Your task to perform on an android device: turn off data saver in the chrome app Image 0: 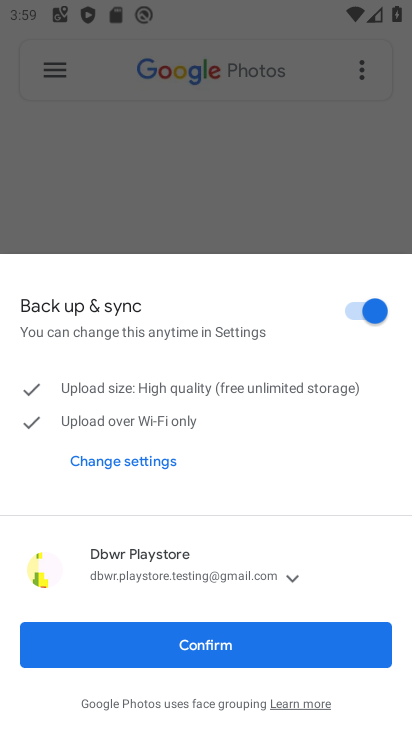
Step 0: press home button
Your task to perform on an android device: turn off data saver in the chrome app Image 1: 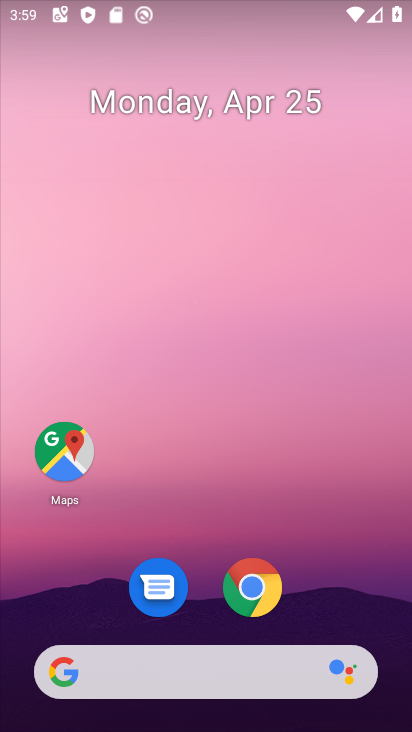
Step 1: click (254, 592)
Your task to perform on an android device: turn off data saver in the chrome app Image 2: 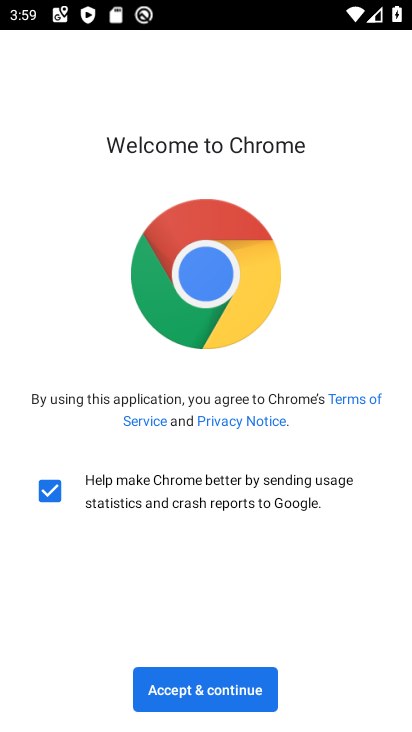
Step 2: click (160, 690)
Your task to perform on an android device: turn off data saver in the chrome app Image 3: 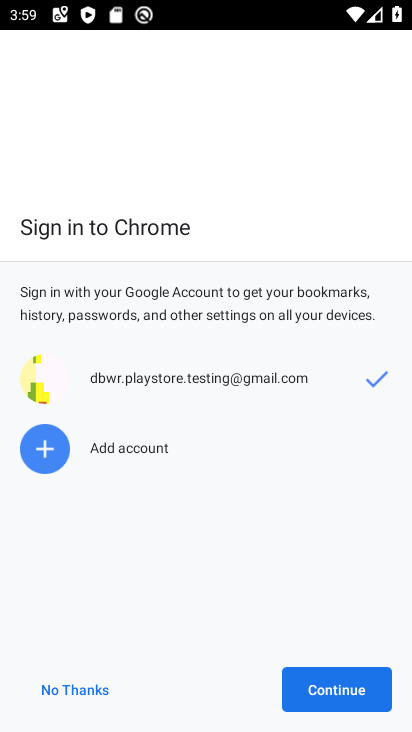
Step 3: click (102, 688)
Your task to perform on an android device: turn off data saver in the chrome app Image 4: 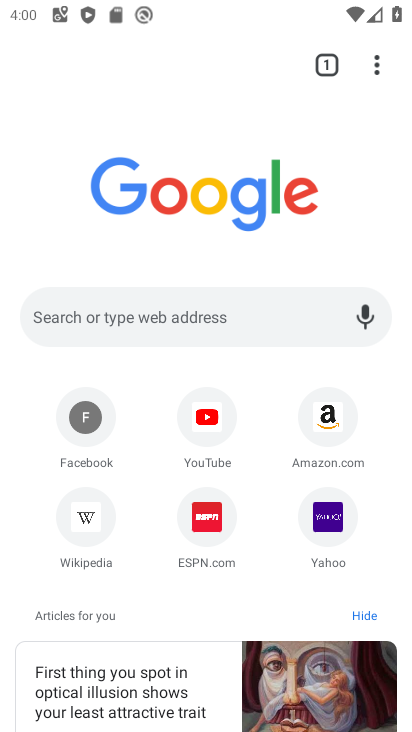
Step 4: drag from (377, 60) to (164, 532)
Your task to perform on an android device: turn off data saver in the chrome app Image 5: 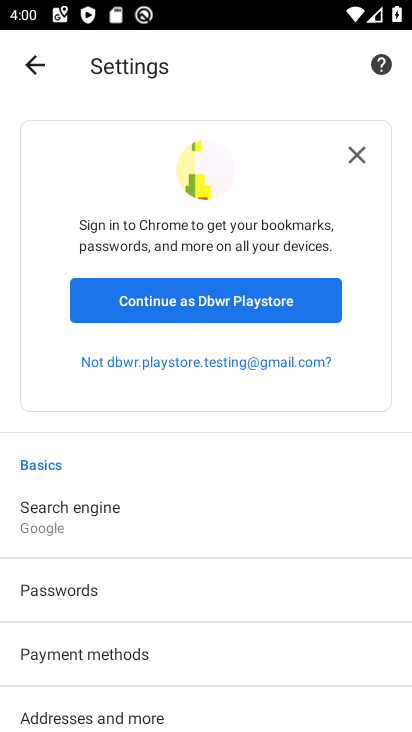
Step 5: drag from (175, 585) to (179, 238)
Your task to perform on an android device: turn off data saver in the chrome app Image 6: 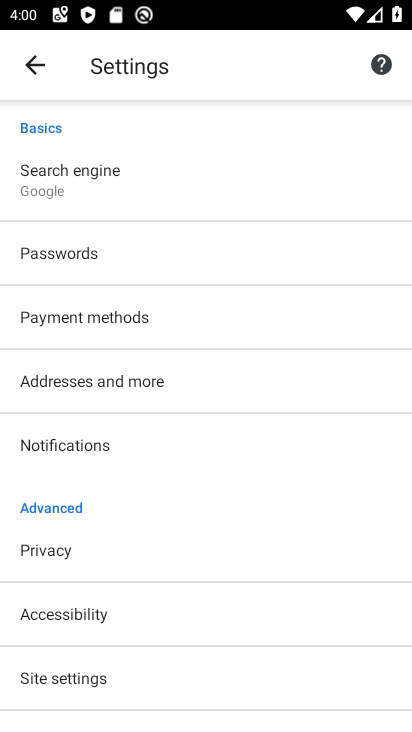
Step 6: drag from (166, 573) to (175, 250)
Your task to perform on an android device: turn off data saver in the chrome app Image 7: 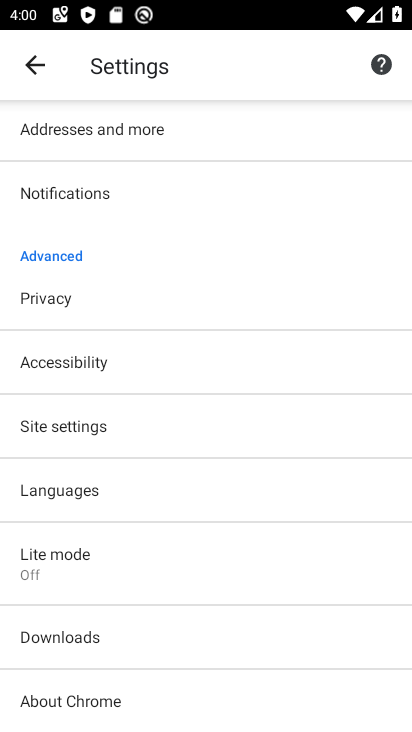
Step 7: click (50, 567)
Your task to perform on an android device: turn off data saver in the chrome app Image 8: 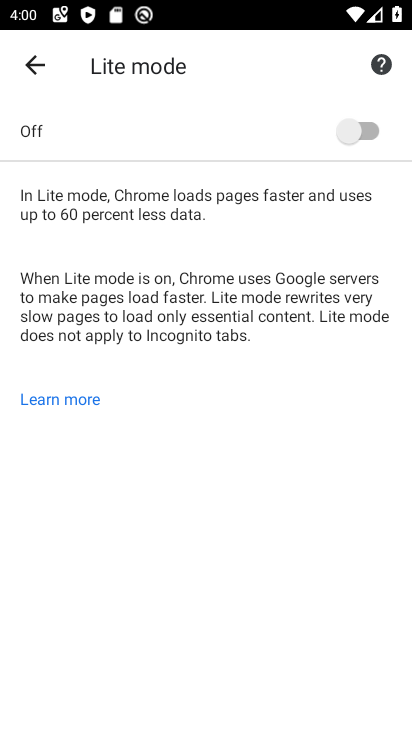
Step 8: task complete